Your task to perform on an android device: Go to internet settings Image 0: 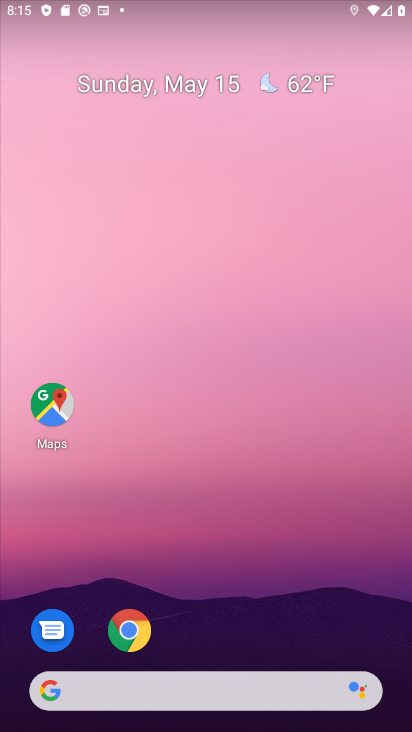
Step 0: drag from (239, 639) to (296, 151)
Your task to perform on an android device: Go to internet settings Image 1: 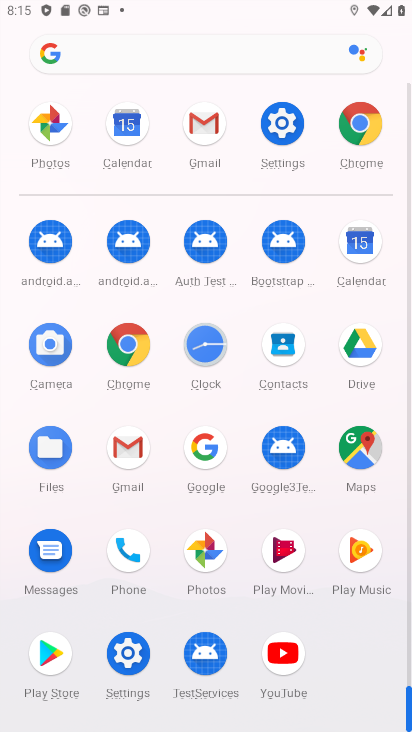
Step 1: click (284, 133)
Your task to perform on an android device: Go to internet settings Image 2: 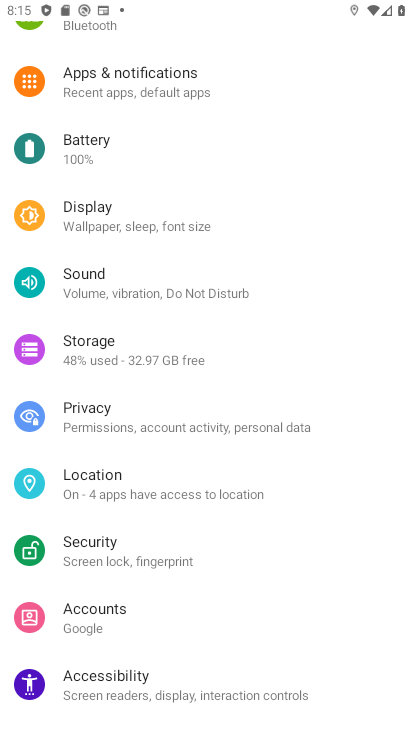
Step 2: drag from (176, 164) to (181, 541)
Your task to perform on an android device: Go to internet settings Image 3: 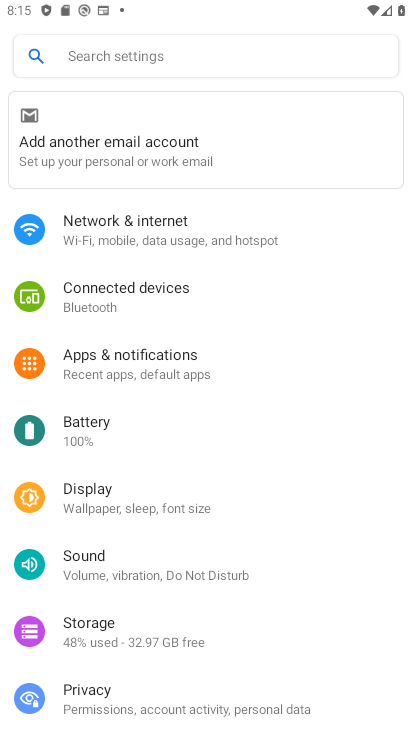
Step 3: click (188, 240)
Your task to perform on an android device: Go to internet settings Image 4: 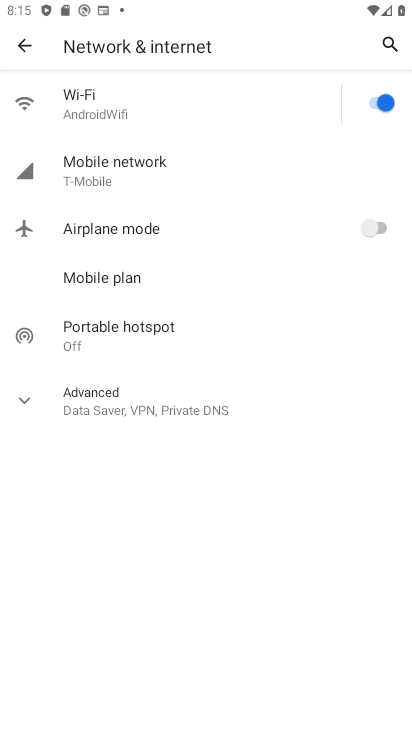
Step 4: task complete